Your task to perform on an android device: check the backup settings in the google photos Image 0: 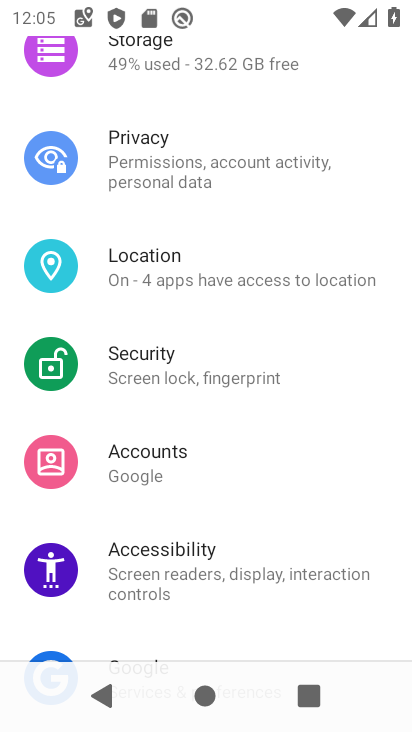
Step 0: press home button
Your task to perform on an android device: check the backup settings in the google photos Image 1: 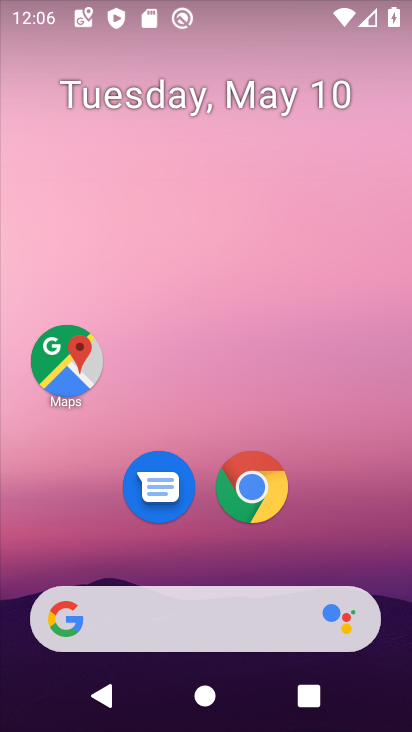
Step 1: drag from (328, 513) to (309, 206)
Your task to perform on an android device: check the backup settings in the google photos Image 2: 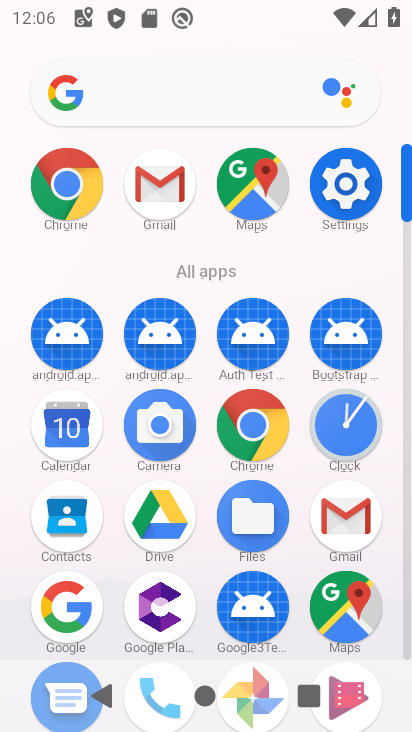
Step 2: click (406, 593)
Your task to perform on an android device: check the backup settings in the google photos Image 3: 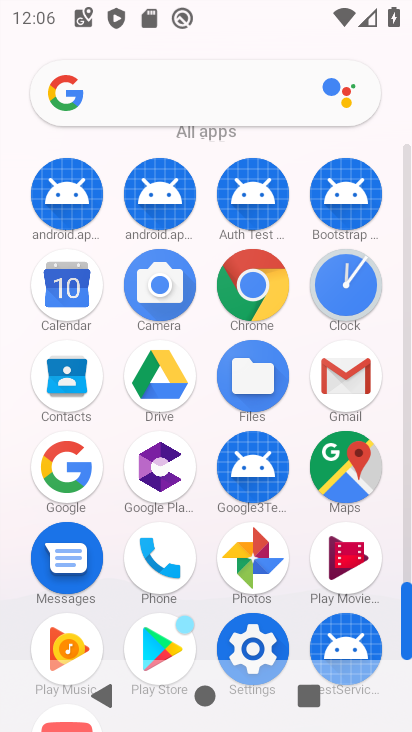
Step 3: click (276, 561)
Your task to perform on an android device: check the backup settings in the google photos Image 4: 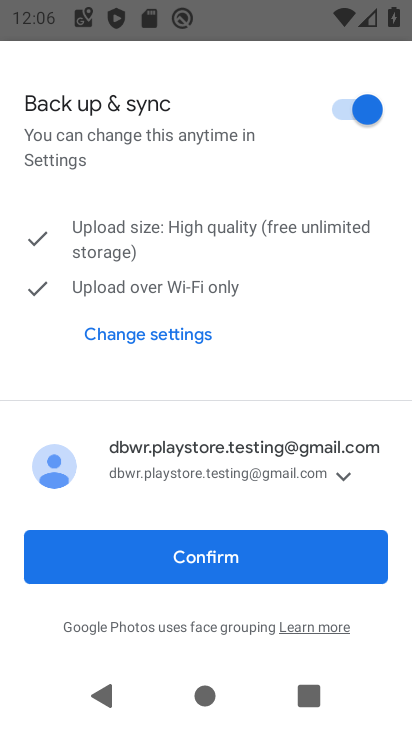
Step 4: click (276, 561)
Your task to perform on an android device: check the backup settings in the google photos Image 5: 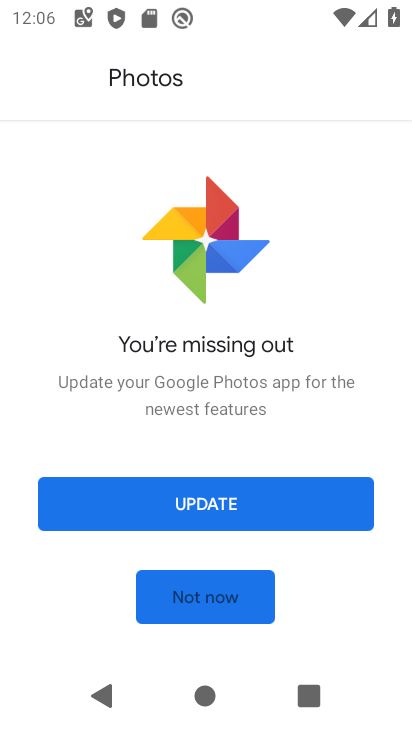
Step 5: click (262, 519)
Your task to perform on an android device: check the backup settings in the google photos Image 6: 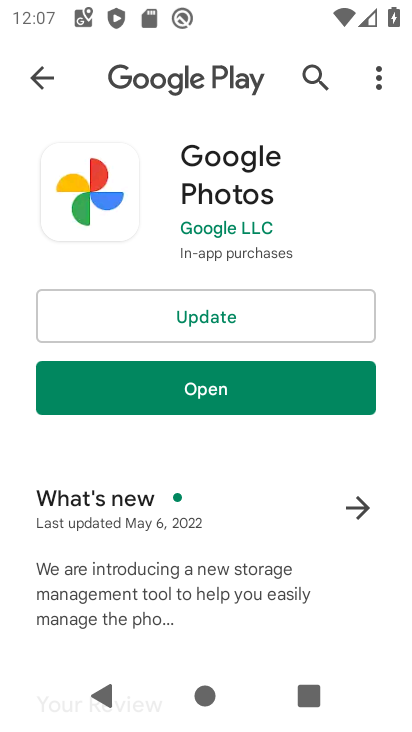
Step 6: click (281, 304)
Your task to perform on an android device: check the backup settings in the google photos Image 7: 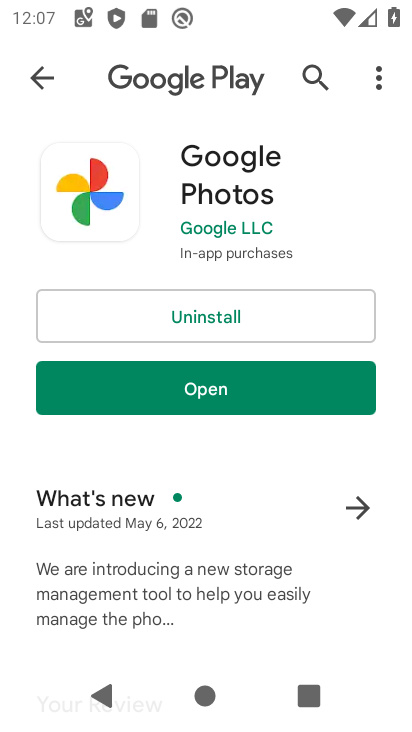
Step 7: click (260, 375)
Your task to perform on an android device: check the backup settings in the google photos Image 8: 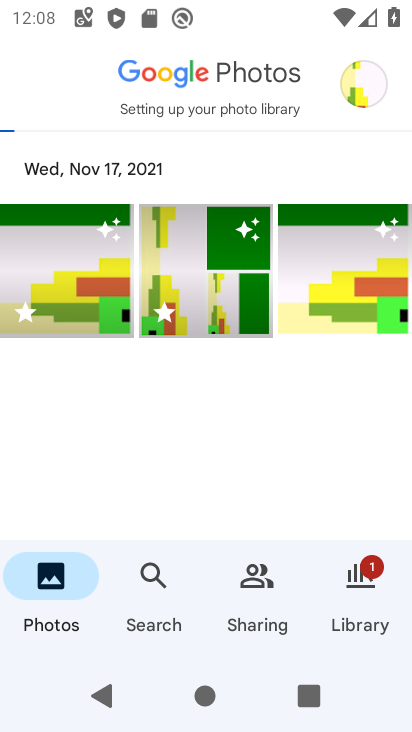
Step 8: click (378, 77)
Your task to perform on an android device: check the backup settings in the google photos Image 9: 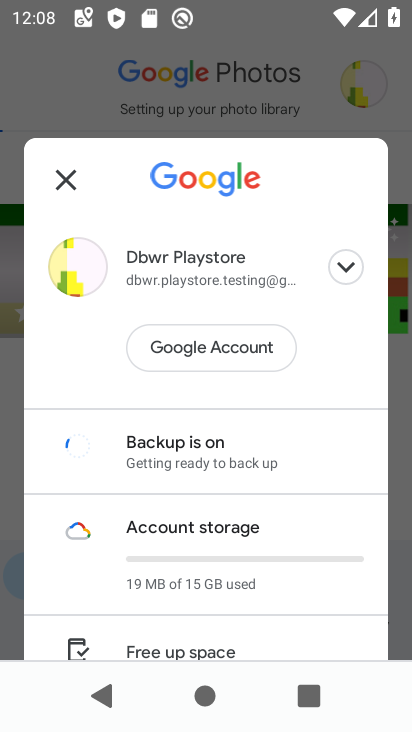
Step 9: click (222, 283)
Your task to perform on an android device: check the backup settings in the google photos Image 10: 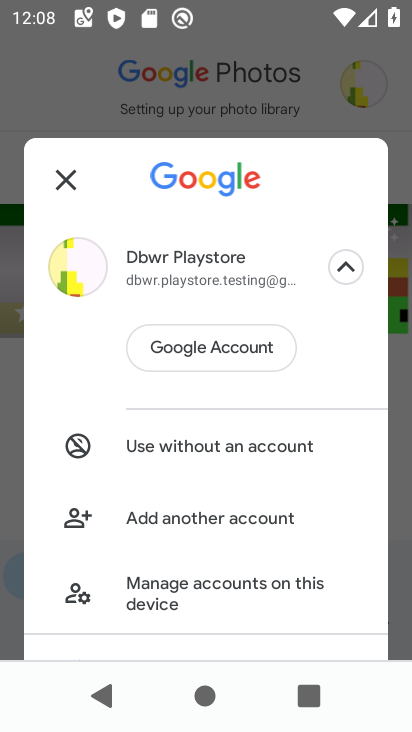
Step 10: task complete